Your task to perform on an android device: turn off translation in the chrome app Image 0: 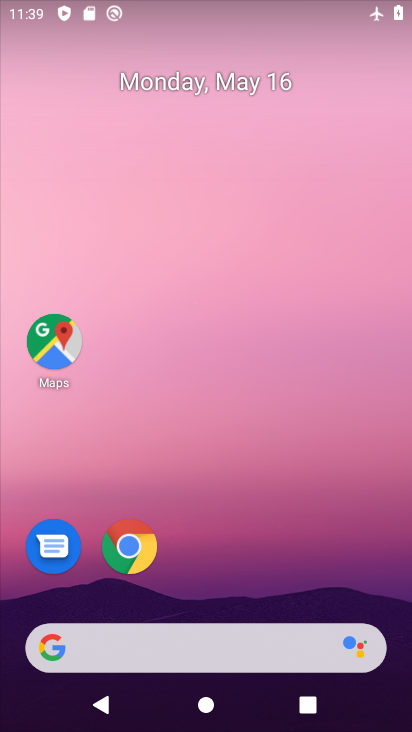
Step 0: click (124, 546)
Your task to perform on an android device: turn off translation in the chrome app Image 1: 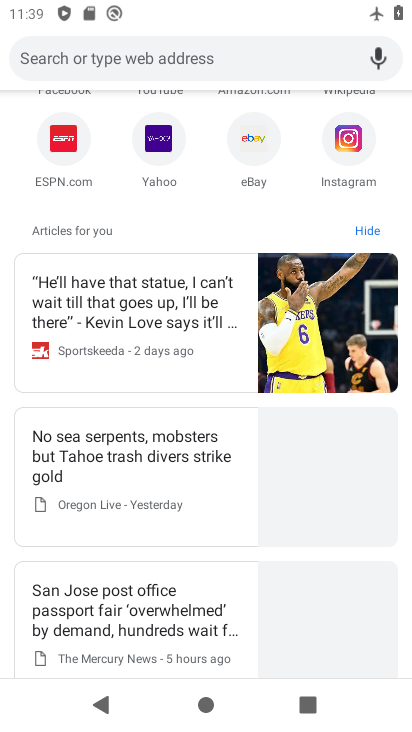
Step 1: drag from (321, 160) to (281, 436)
Your task to perform on an android device: turn off translation in the chrome app Image 2: 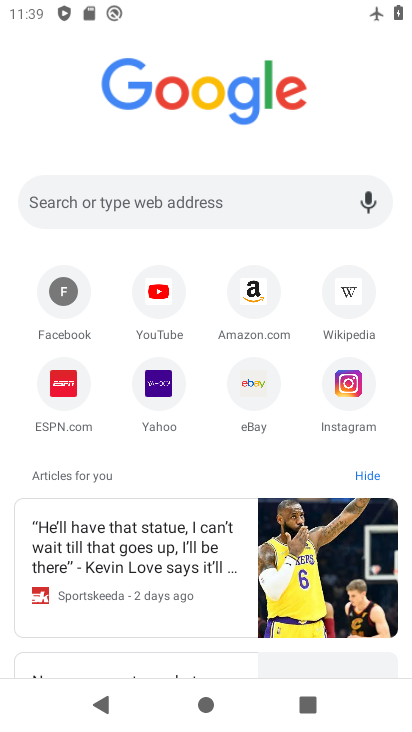
Step 2: drag from (365, 104) to (305, 399)
Your task to perform on an android device: turn off translation in the chrome app Image 3: 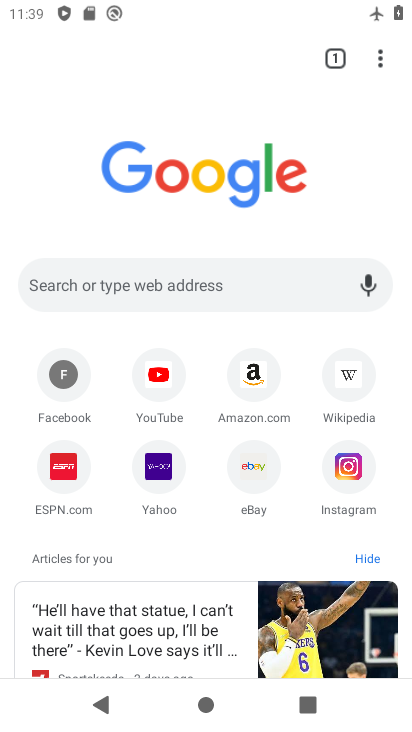
Step 3: click (377, 65)
Your task to perform on an android device: turn off translation in the chrome app Image 4: 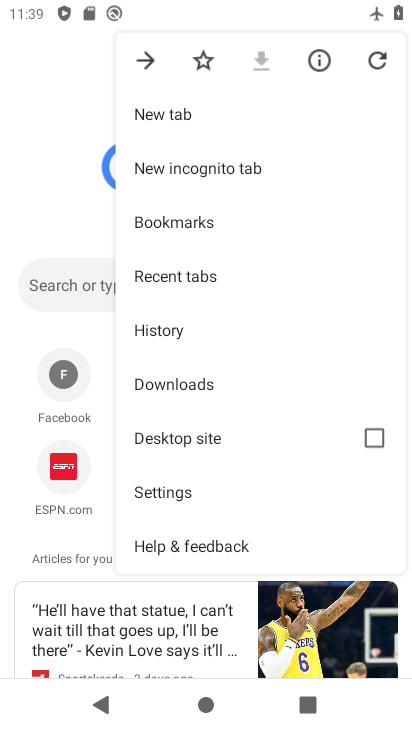
Step 4: click (171, 497)
Your task to perform on an android device: turn off translation in the chrome app Image 5: 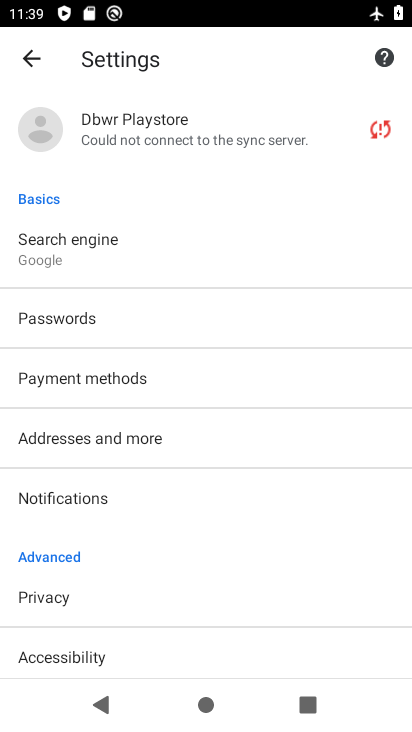
Step 5: drag from (184, 637) to (204, 113)
Your task to perform on an android device: turn off translation in the chrome app Image 6: 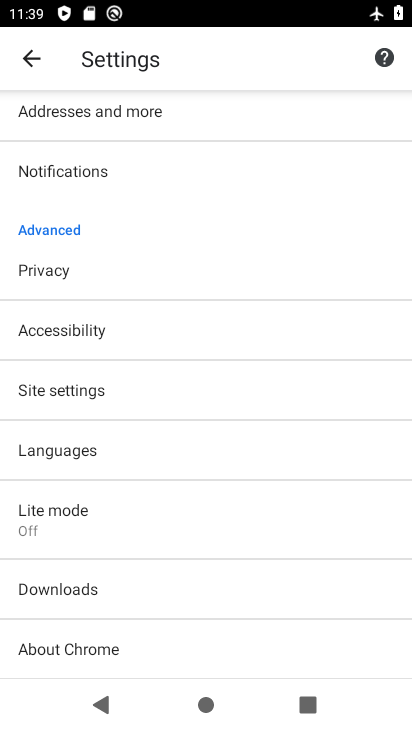
Step 6: click (43, 456)
Your task to perform on an android device: turn off translation in the chrome app Image 7: 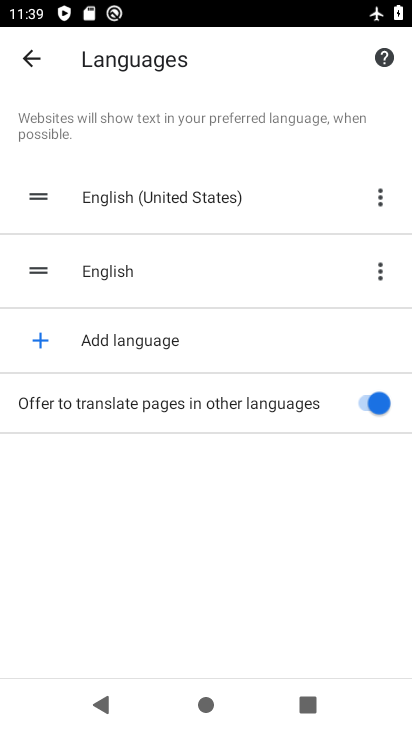
Step 7: click (356, 400)
Your task to perform on an android device: turn off translation in the chrome app Image 8: 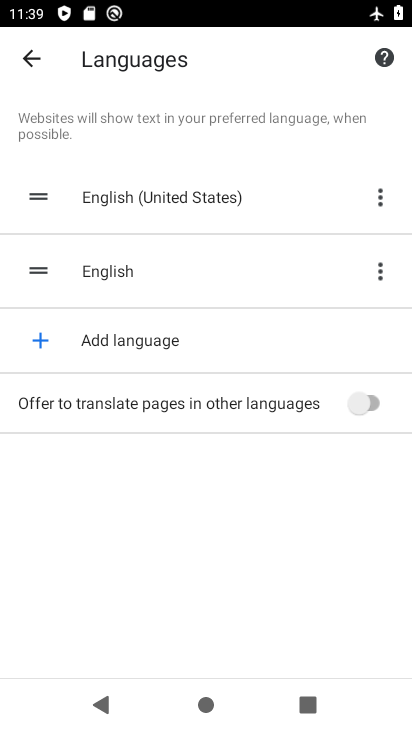
Step 8: task complete